Your task to perform on an android device: Open the calendar and show me this week's events? Image 0: 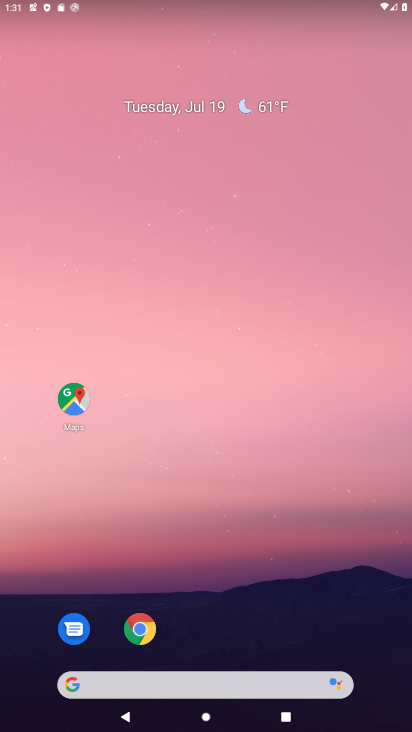
Step 0: drag from (188, 674) to (155, 221)
Your task to perform on an android device: Open the calendar and show me this week's events? Image 1: 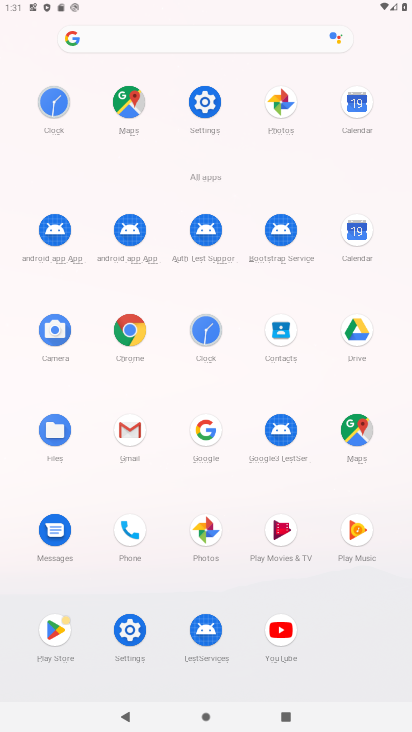
Step 1: click (353, 251)
Your task to perform on an android device: Open the calendar and show me this week's events? Image 2: 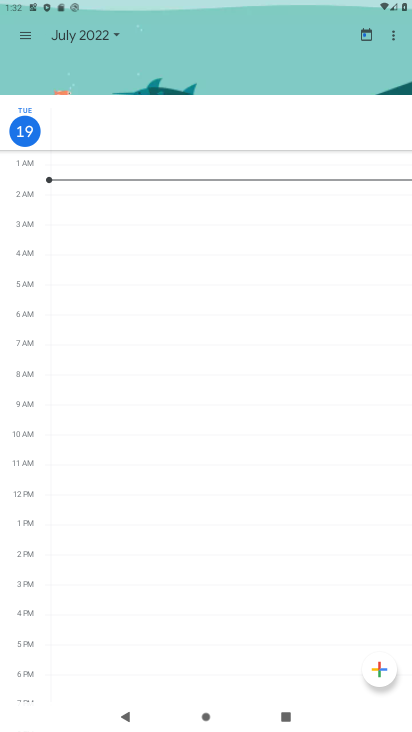
Step 2: click (32, 38)
Your task to perform on an android device: Open the calendar and show me this week's events? Image 3: 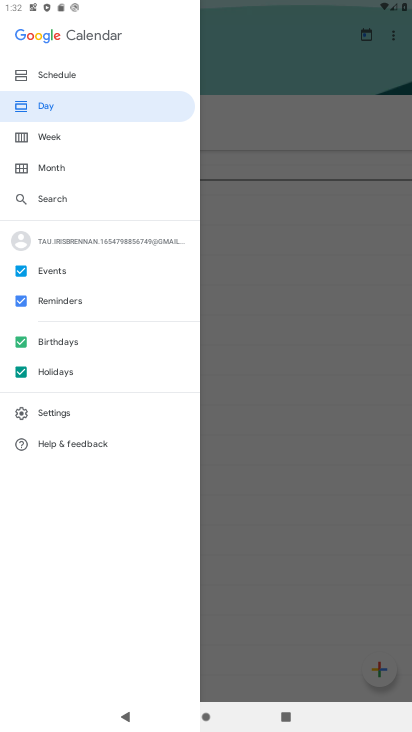
Step 3: click (57, 140)
Your task to perform on an android device: Open the calendar and show me this week's events? Image 4: 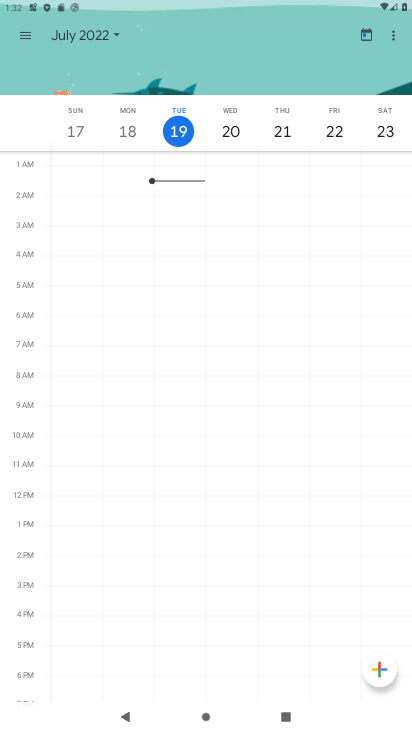
Step 4: task complete